Your task to perform on an android device: Turn on the flashlight Image 0: 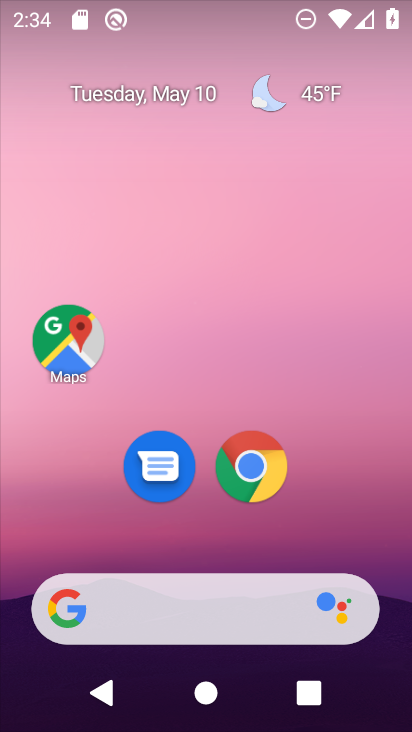
Step 0: drag from (322, 537) to (278, 1)
Your task to perform on an android device: Turn on the flashlight Image 1: 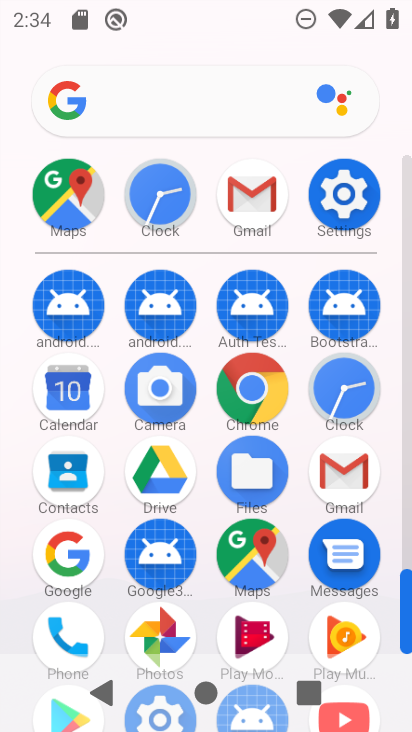
Step 1: click (341, 206)
Your task to perform on an android device: Turn on the flashlight Image 2: 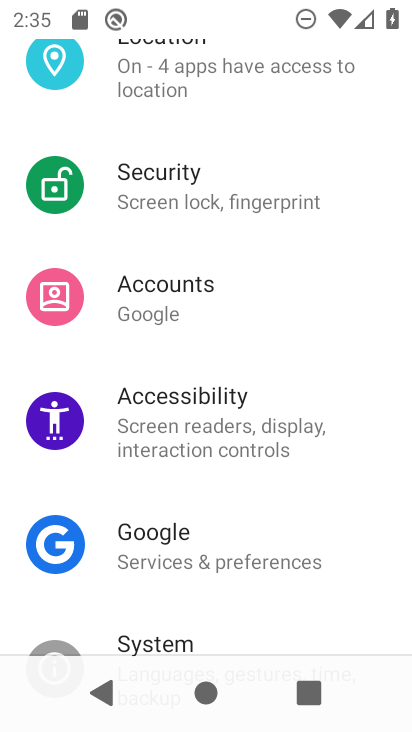
Step 2: task complete